Your task to perform on an android device: Open the map Image 0: 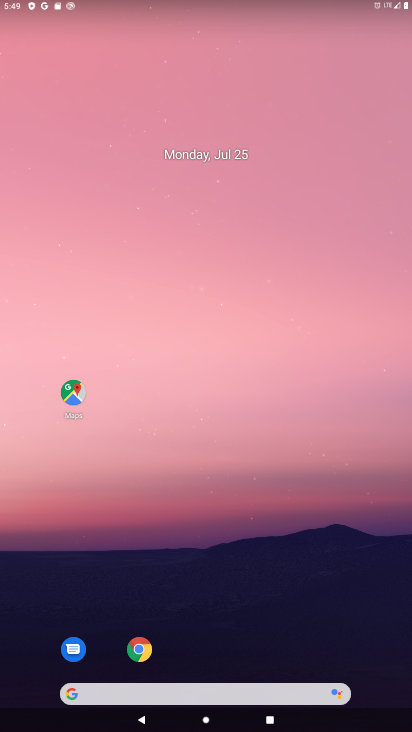
Step 0: drag from (194, 651) to (234, 76)
Your task to perform on an android device: Open the map Image 1: 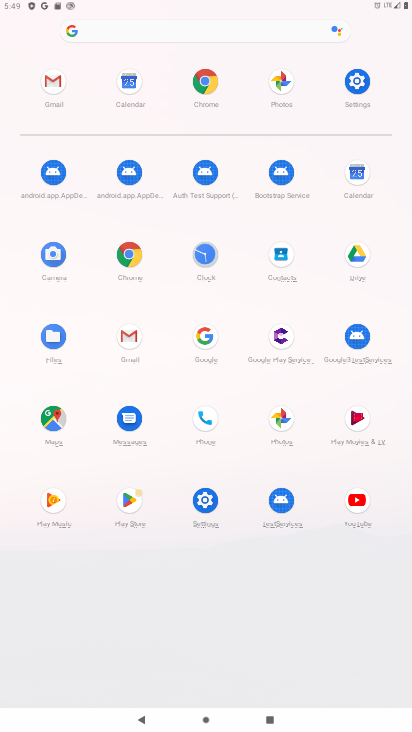
Step 1: click (64, 420)
Your task to perform on an android device: Open the map Image 2: 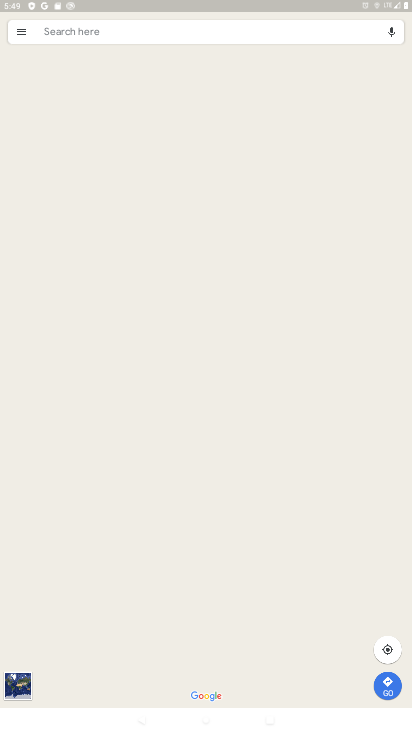
Step 2: task complete